Your task to perform on an android device: Open Google Chrome and open the bookmarks view Image 0: 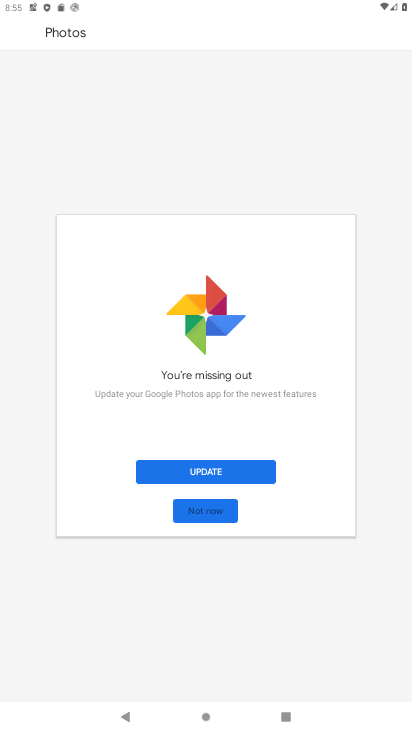
Step 0: press home button
Your task to perform on an android device: Open Google Chrome and open the bookmarks view Image 1: 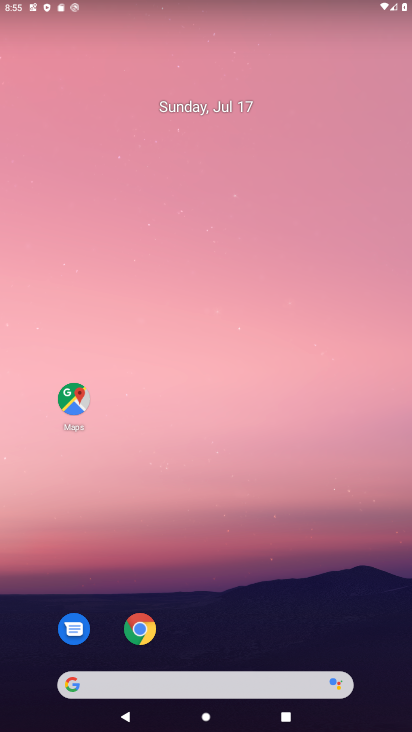
Step 1: drag from (234, 728) to (230, 166)
Your task to perform on an android device: Open Google Chrome and open the bookmarks view Image 2: 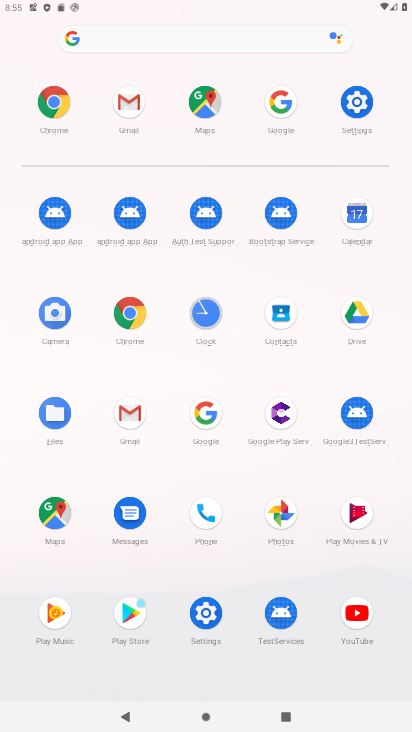
Step 2: click (131, 317)
Your task to perform on an android device: Open Google Chrome and open the bookmarks view Image 3: 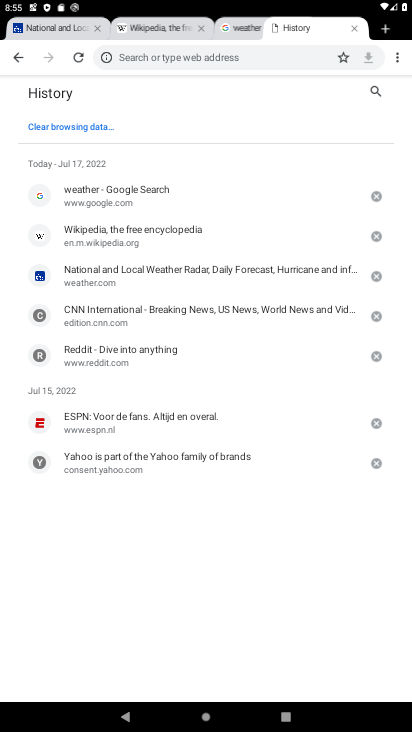
Step 3: click (399, 60)
Your task to perform on an android device: Open Google Chrome and open the bookmarks view Image 4: 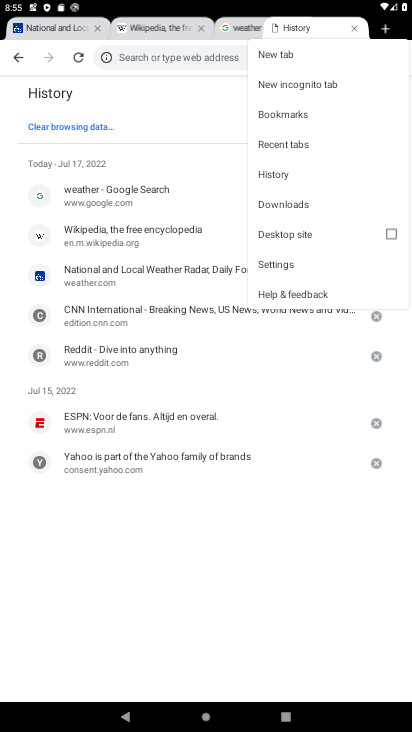
Step 4: click (279, 109)
Your task to perform on an android device: Open Google Chrome and open the bookmarks view Image 5: 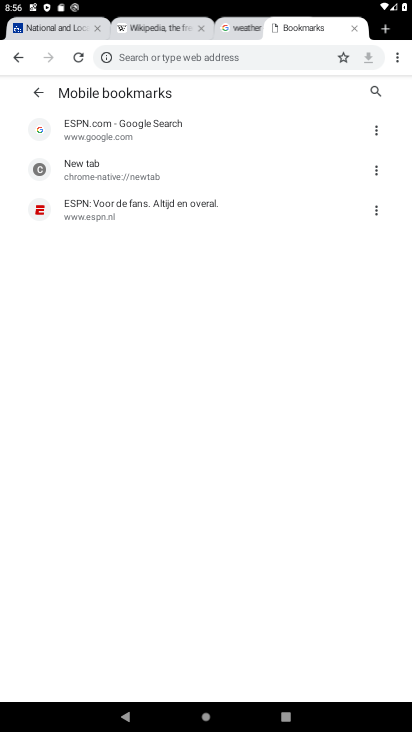
Step 5: task complete